Your task to perform on an android device: Do I have any events this weekend? Image 0: 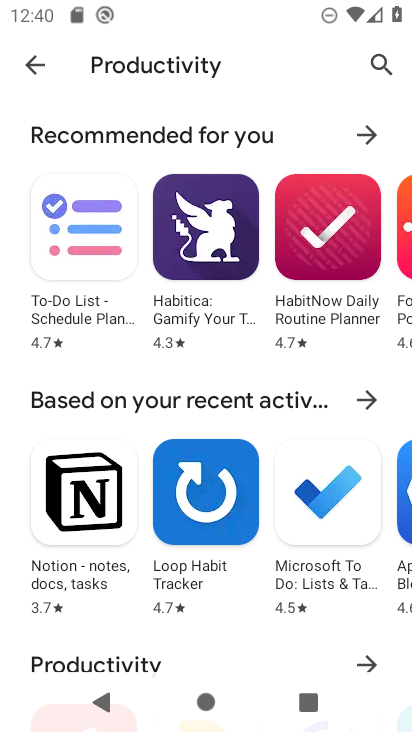
Step 0: press home button
Your task to perform on an android device: Do I have any events this weekend? Image 1: 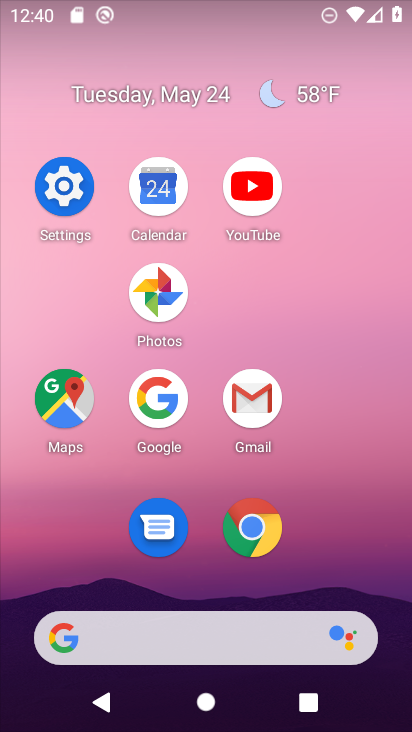
Step 1: click (157, 189)
Your task to perform on an android device: Do I have any events this weekend? Image 2: 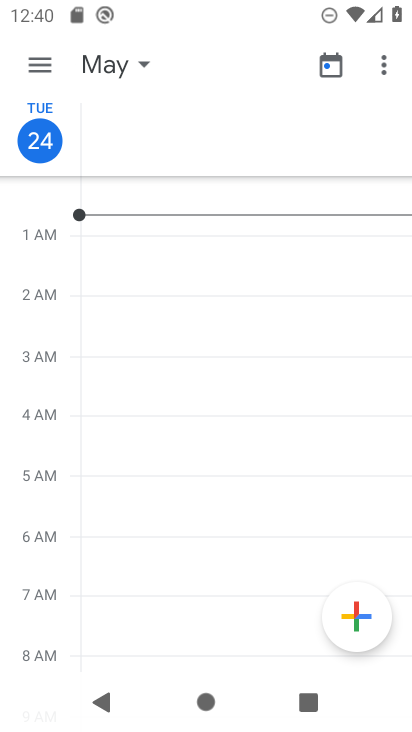
Step 2: click (35, 70)
Your task to perform on an android device: Do I have any events this weekend? Image 3: 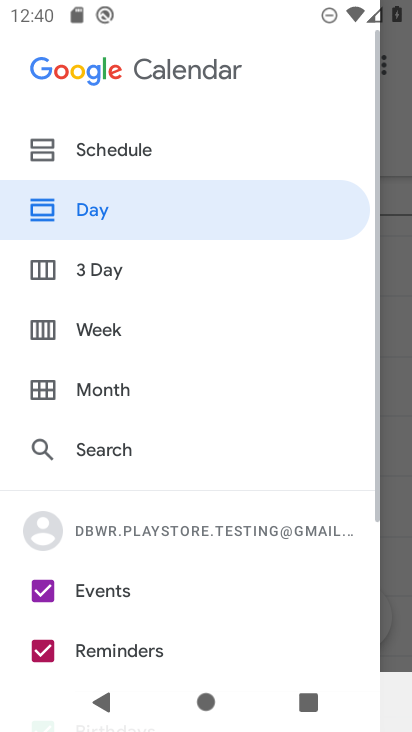
Step 3: click (174, 327)
Your task to perform on an android device: Do I have any events this weekend? Image 4: 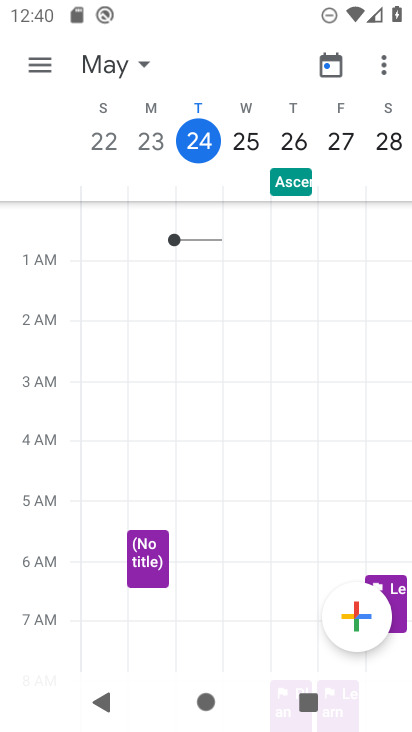
Step 4: click (387, 135)
Your task to perform on an android device: Do I have any events this weekend? Image 5: 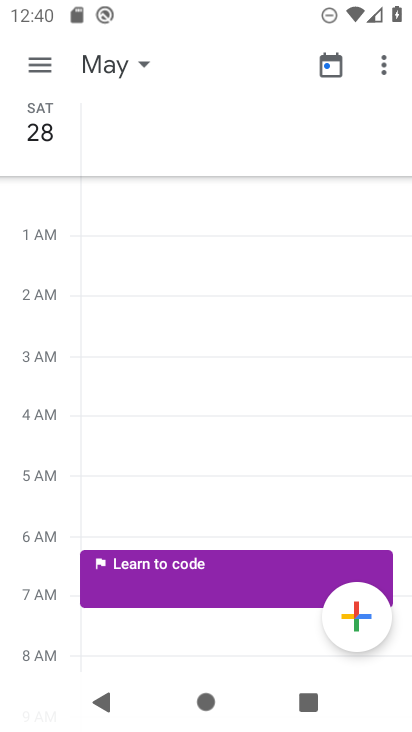
Step 5: task complete